Your task to perform on an android device: Go to ESPN.com Image 0: 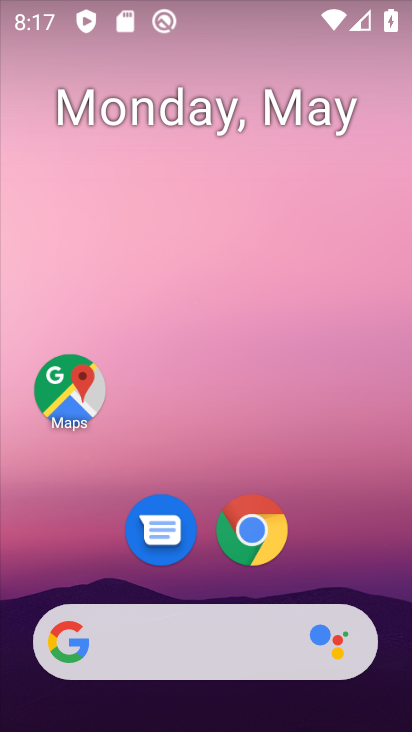
Step 0: click (254, 521)
Your task to perform on an android device: Go to ESPN.com Image 1: 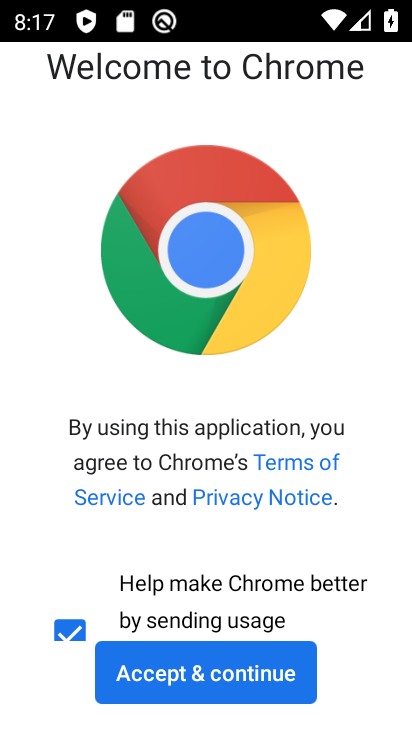
Step 1: click (179, 691)
Your task to perform on an android device: Go to ESPN.com Image 2: 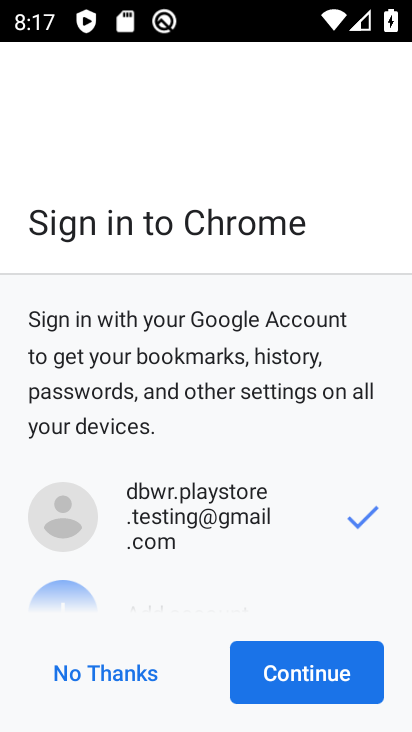
Step 2: click (286, 677)
Your task to perform on an android device: Go to ESPN.com Image 3: 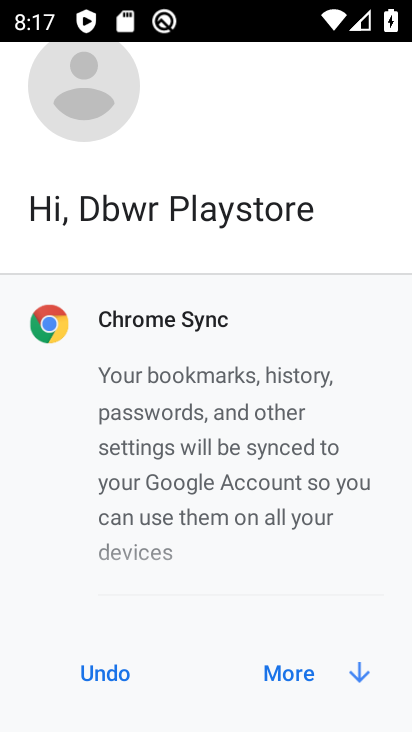
Step 3: click (290, 679)
Your task to perform on an android device: Go to ESPN.com Image 4: 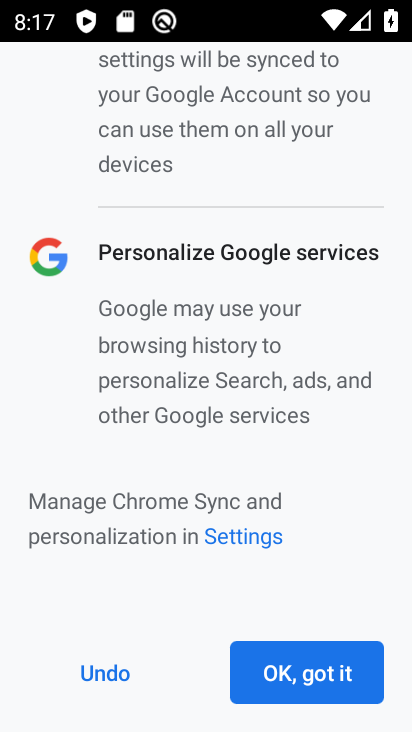
Step 4: click (288, 679)
Your task to perform on an android device: Go to ESPN.com Image 5: 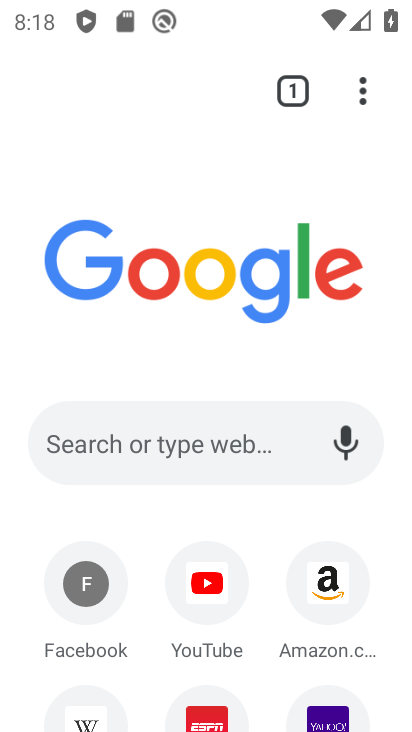
Step 5: drag from (171, 697) to (201, 388)
Your task to perform on an android device: Go to ESPN.com Image 6: 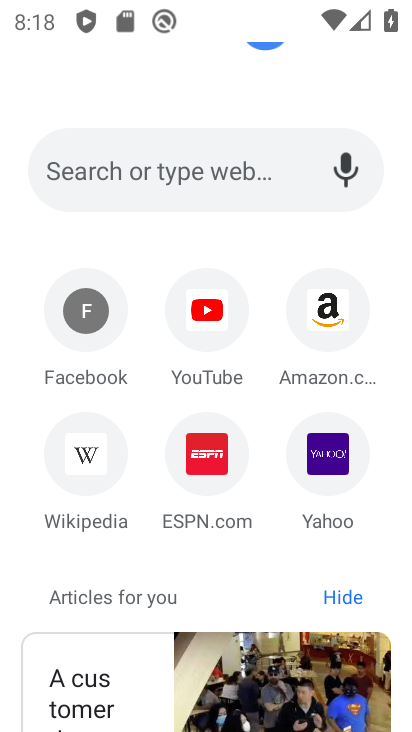
Step 6: click (214, 453)
Your task to perform on an android device: Go to ESPN.com Image 7: 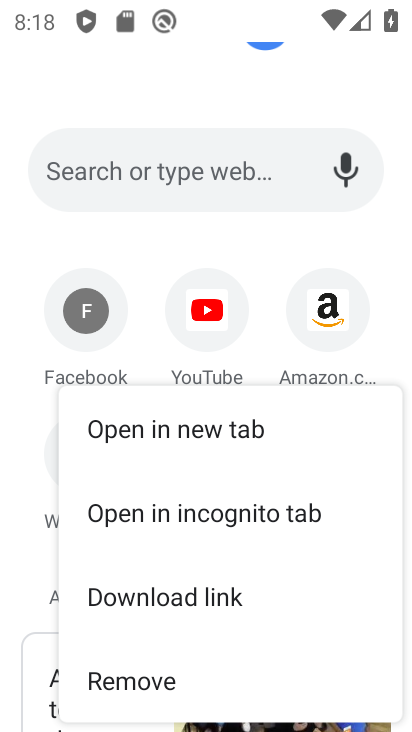
Step 7: press back button
Your task to perform on an android device: Go to ESPN.com Image 8: 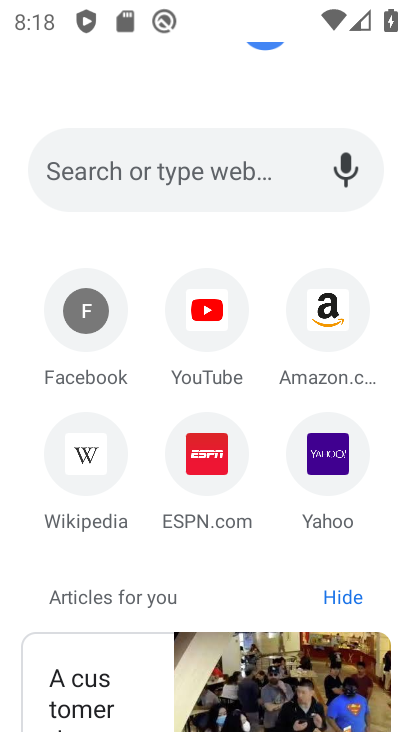
Step 8: click (200, 451)
Your task to perform on an android device: Go to ESPN.com Image 9: 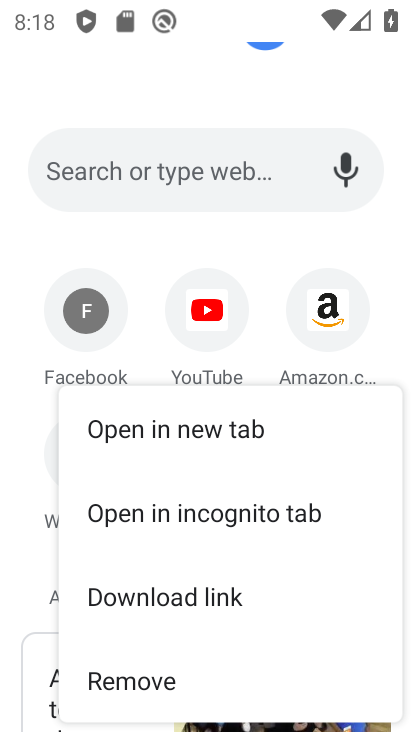
Step 9: press back button
Your task to perform on an android device: Go to ESPN.com Image 10: 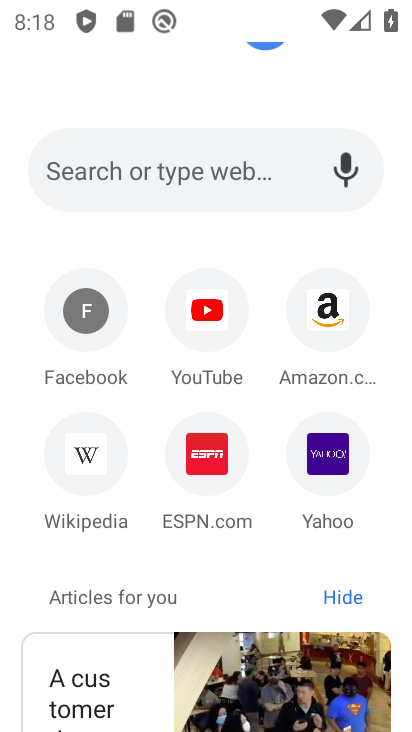
Step 10: click (239, 438)
Your task to perform on an android device: Go to ESPN.com Image 11: 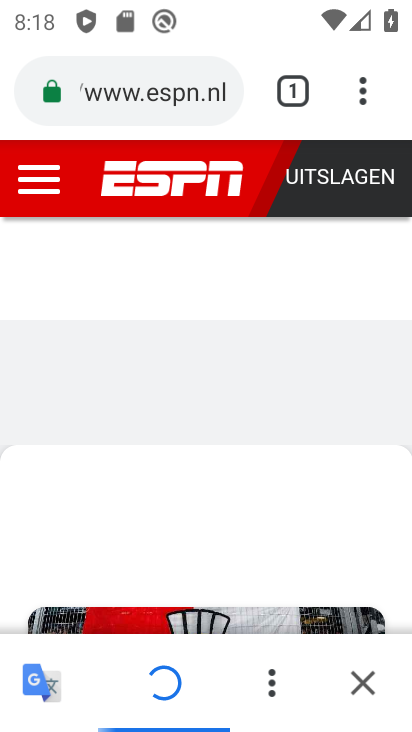
Step 11: task complete